Your task to perform on an android device: Open Amazon Image 0: 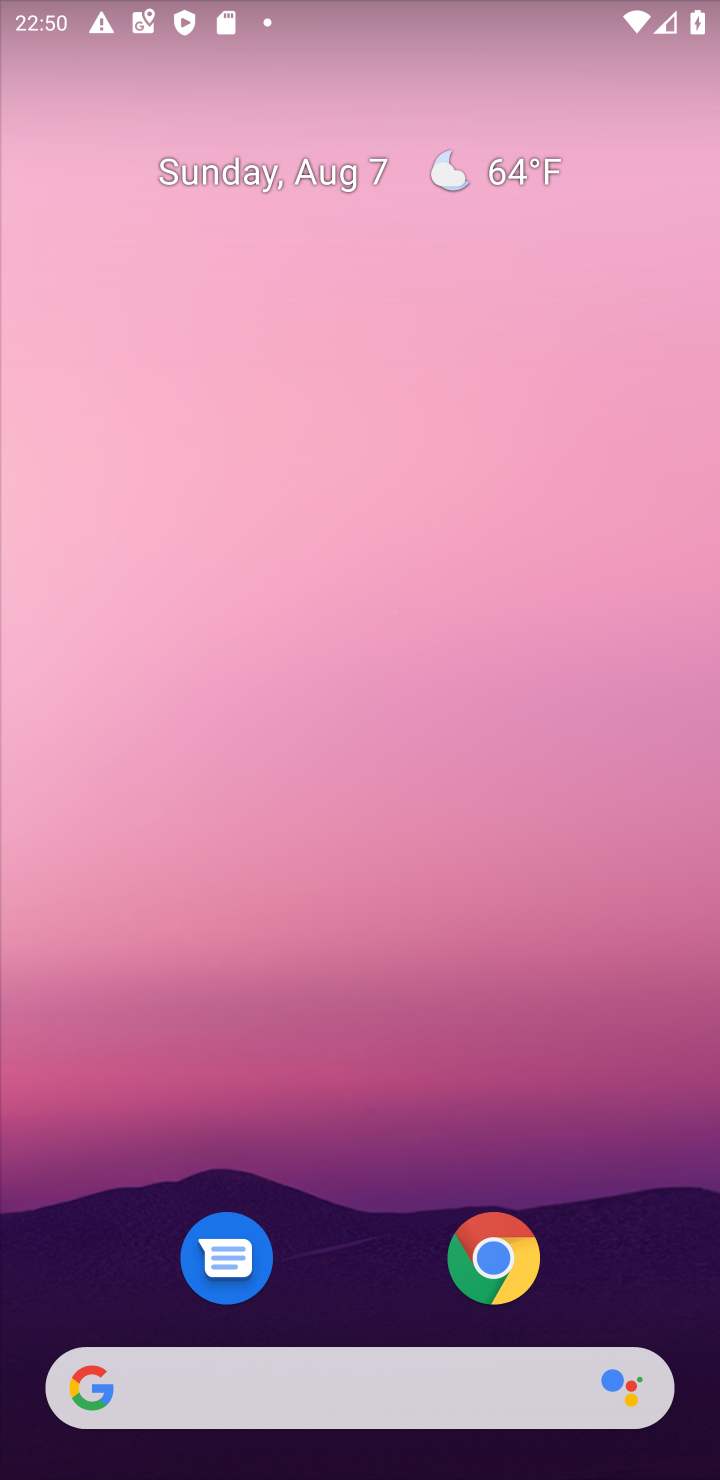
Step 0: press home button
Your task to perform on an android device: Open Amazon Image 1: 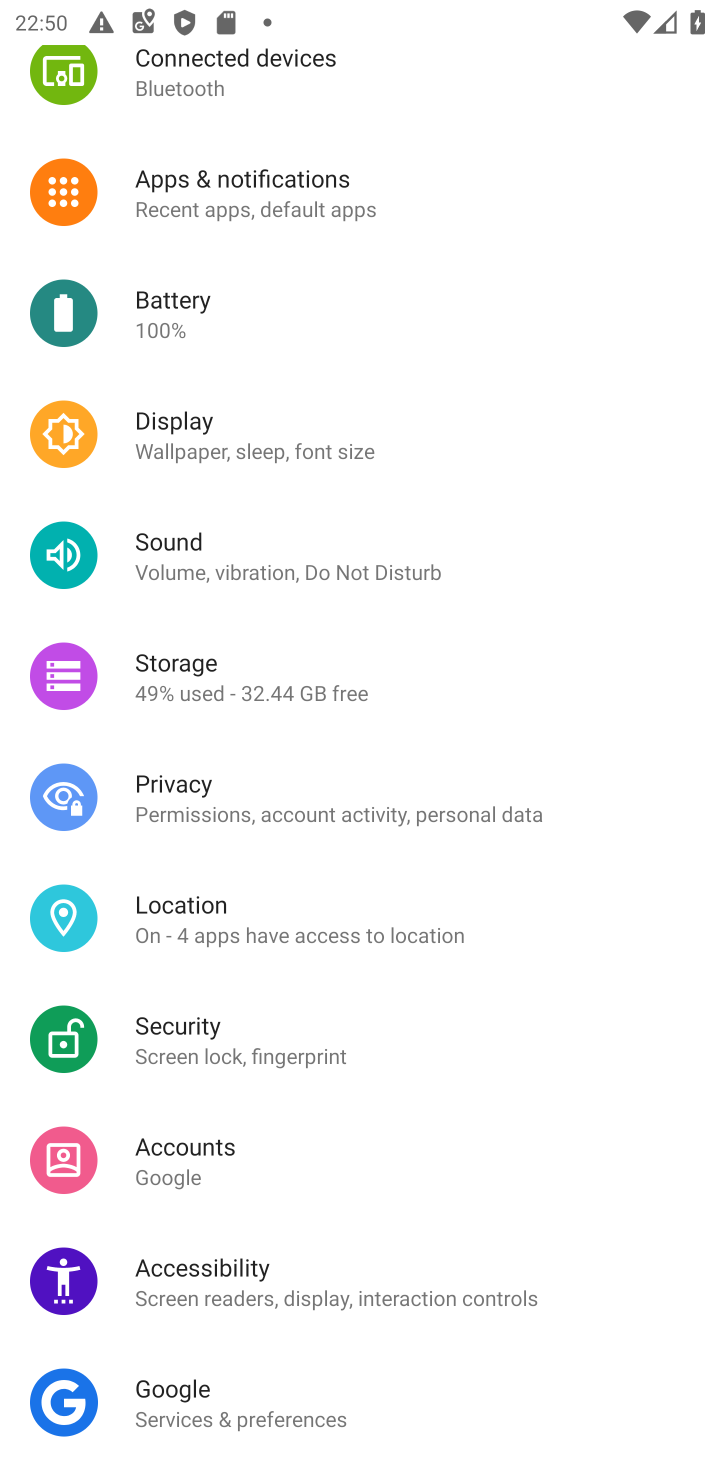
Step 1: drag from (304, 1220) to (264, 494)
Your task to perform on an android device: Open Amazon Image 2: 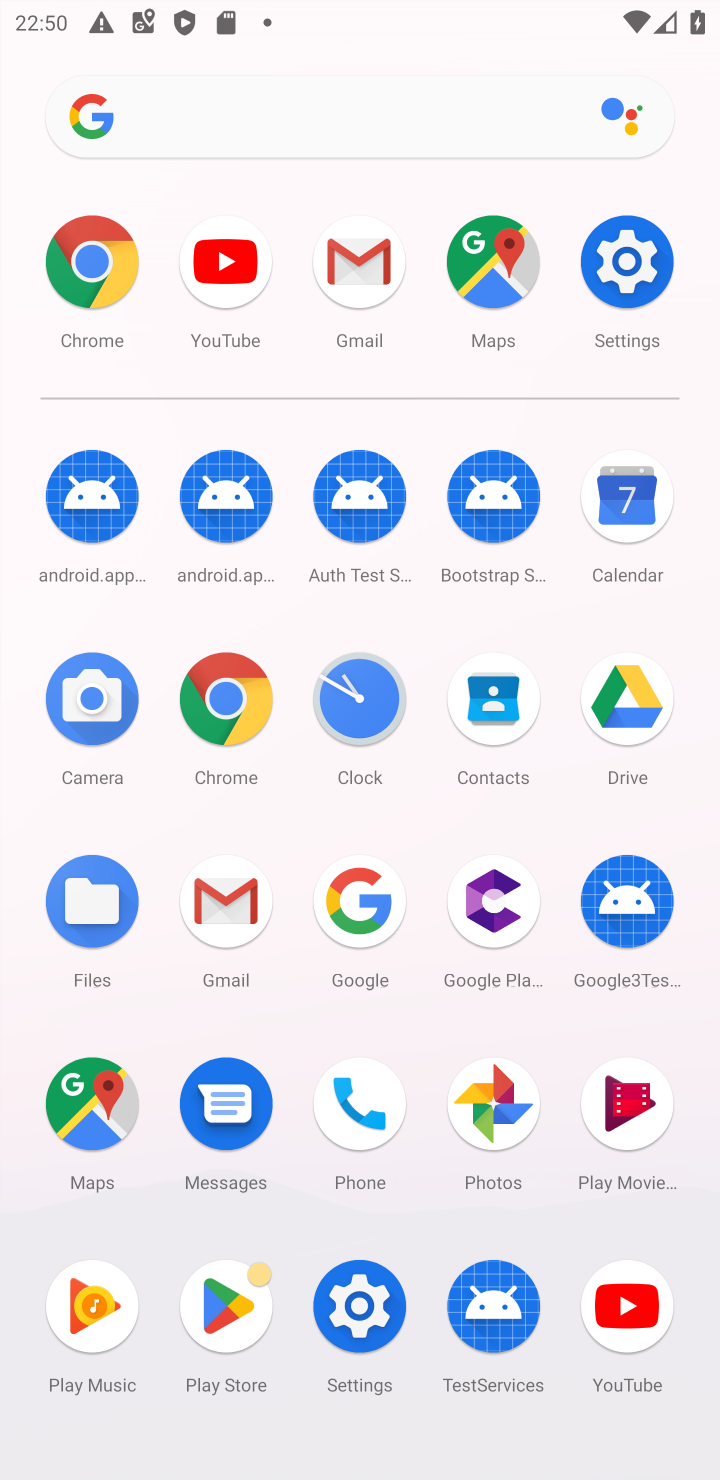
Step 2: click (228, 713)
Your task to perform on an android device: Open Amazon Image 3: 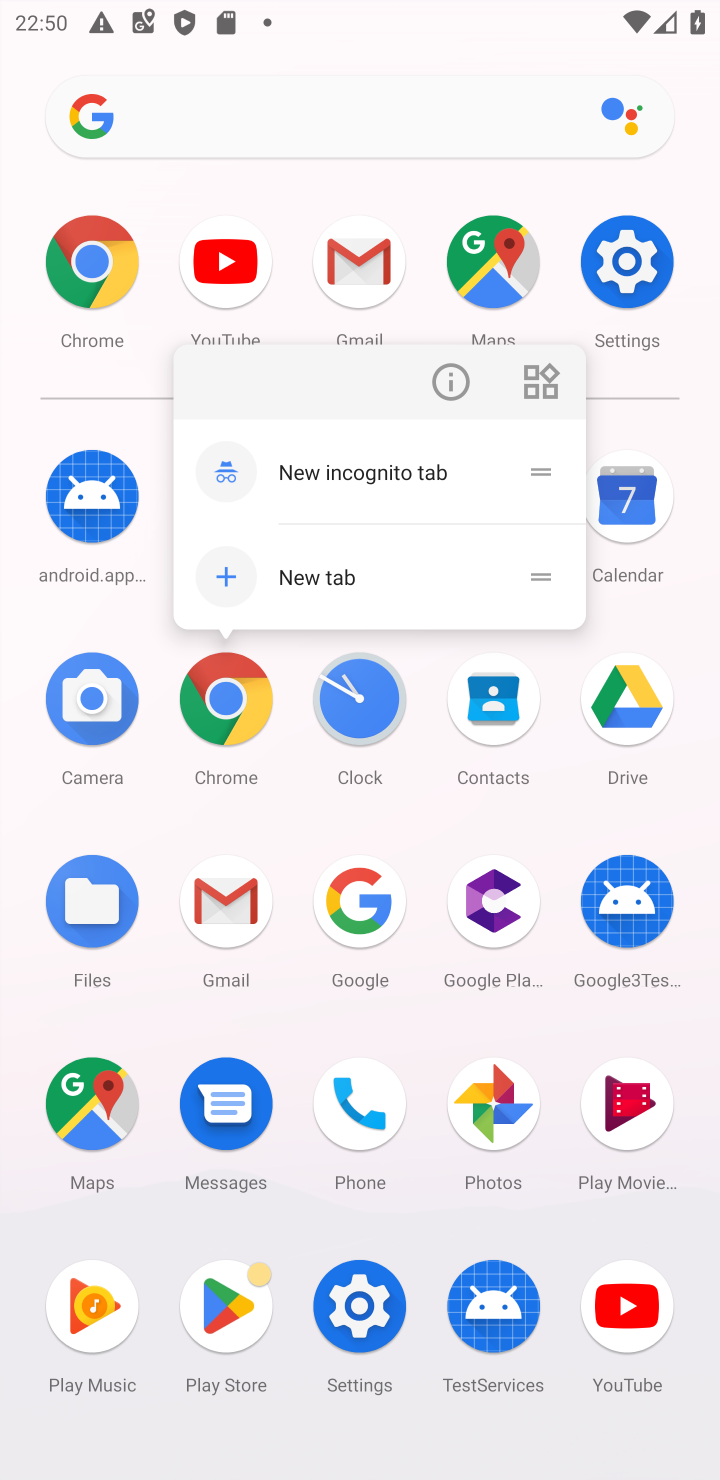
Step 3: click (228, 713)
Your task to perform on an android device: Open Amazon Image 4: 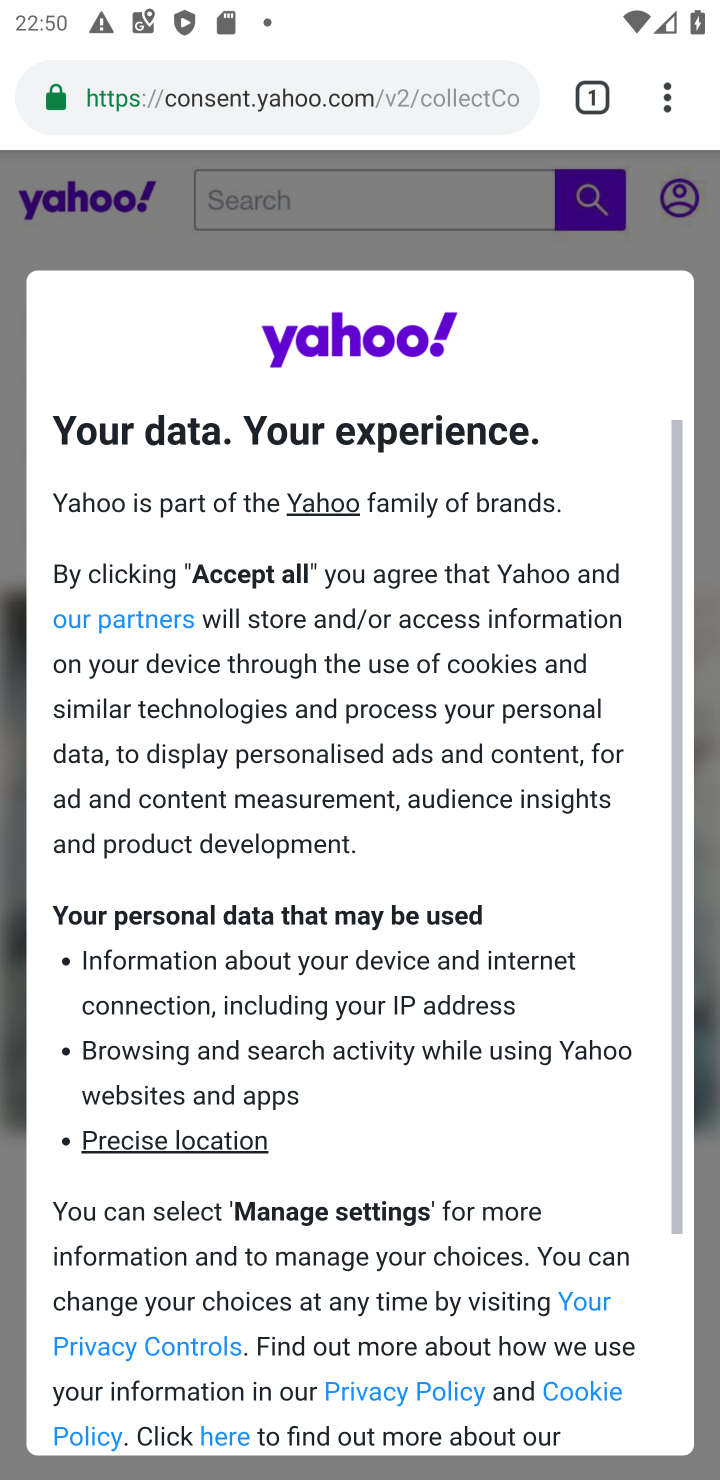
Step 4: drag from (676, 94) to (318, 285)
Your task to perform on an android device: Open Amazon Image 5: 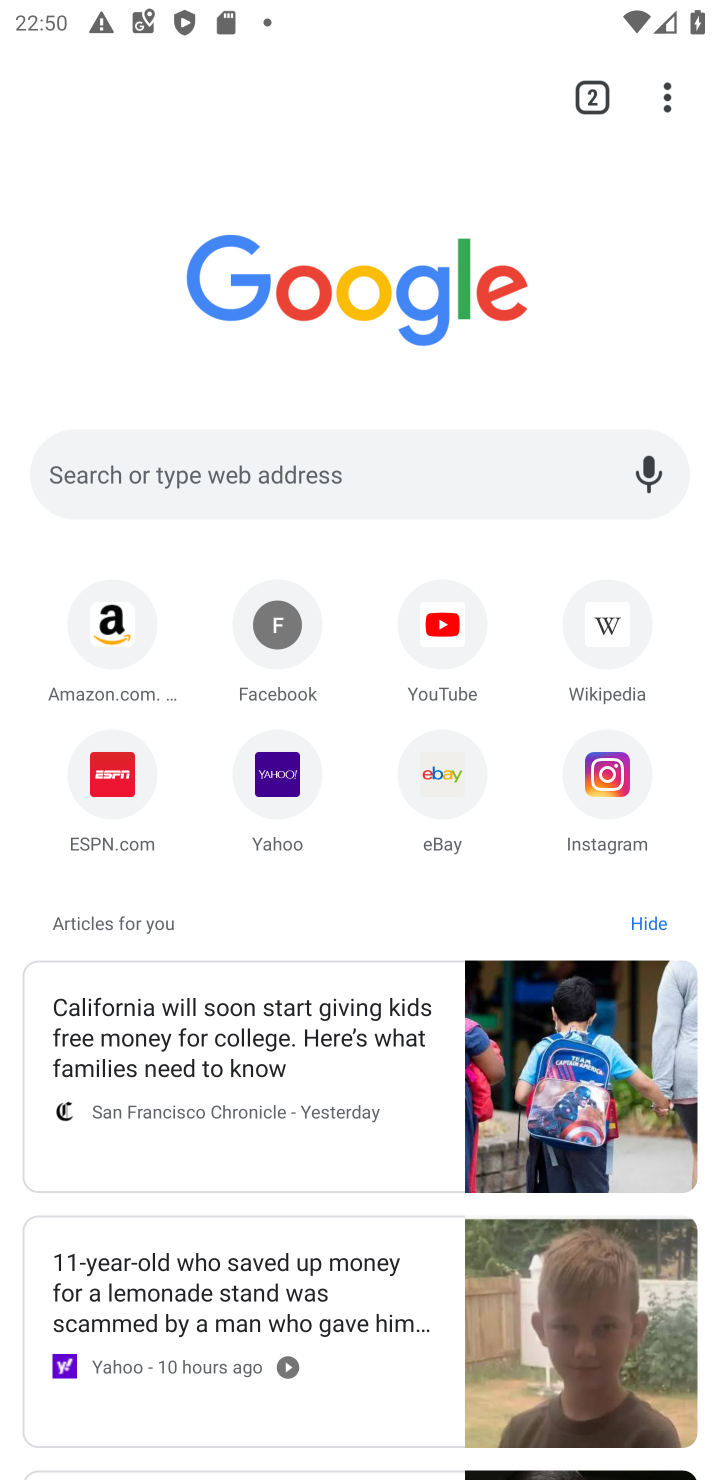
Step 5: click (107, 651)
Your task to perform on an android device: Open Amazon Image 6: 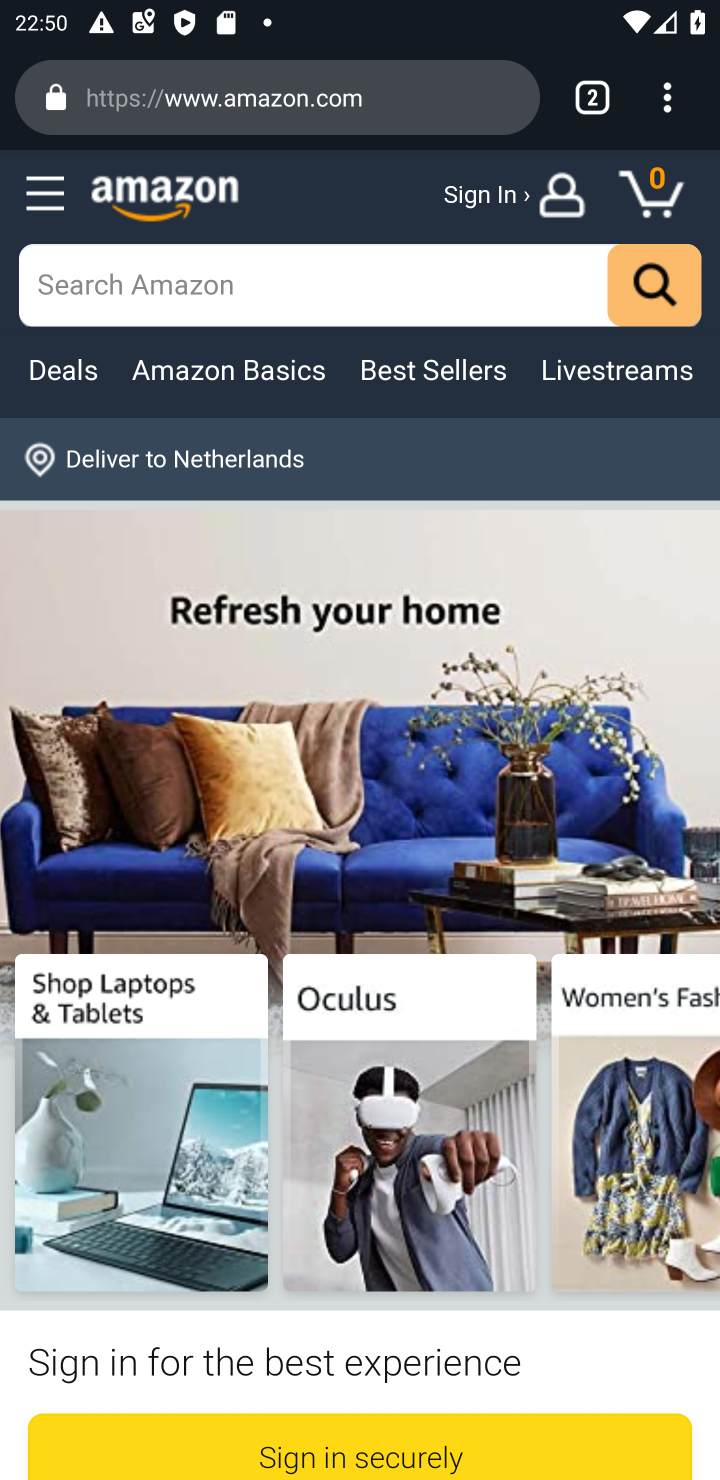
Step 6: task complete